Your task to perform on an android device: Open Maps and search for coffee Image 0: 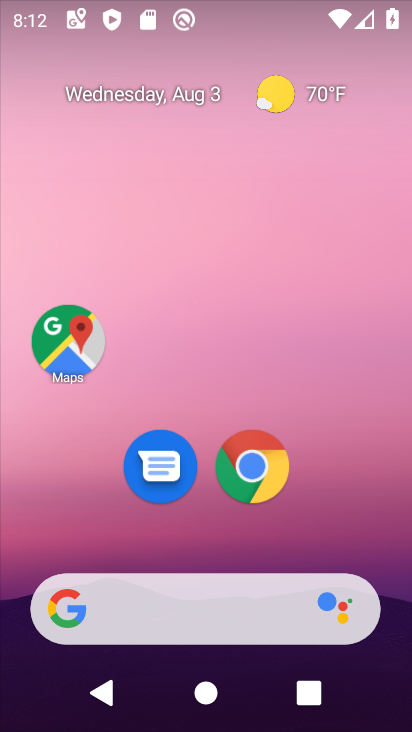
Step 0: drag from (347, 434) to (360, 63)
Your task to perform on an android device: Open Maps and search for coffee Image 1: 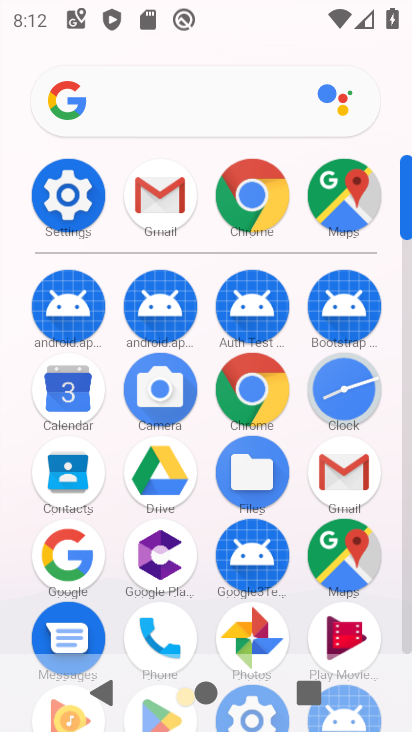
Step 1: click (346, 574)
Your task to perform on an android device: Open Maps and search for coffee Image 2: 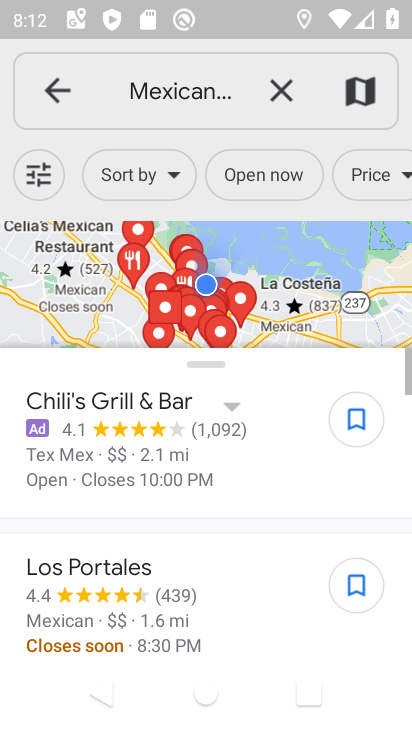
Step 2: click (208, 86)
Your task to perform on an android device: Open Maps and search for coffee Image 3: 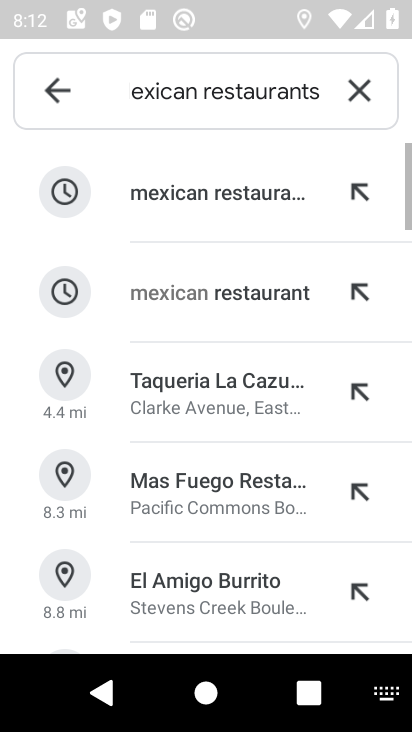
Step 3: click (365, 93)
Your task to perform on an android device: Open Maps and search for coffee Image 4: 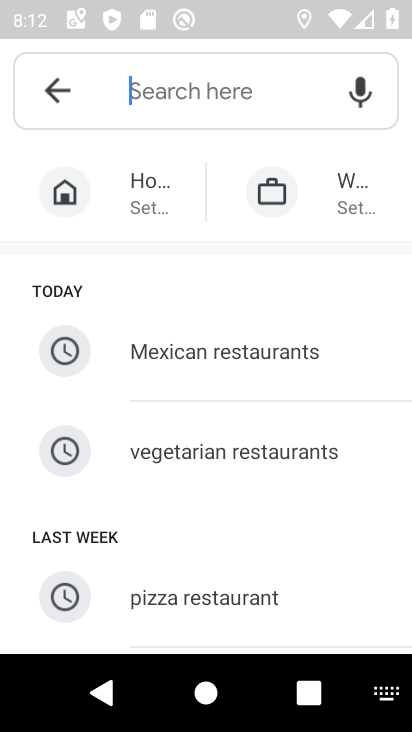
Step 4: type "coffee"
Your task to perform on an android device: Open Maps and search for coffee Image 5: 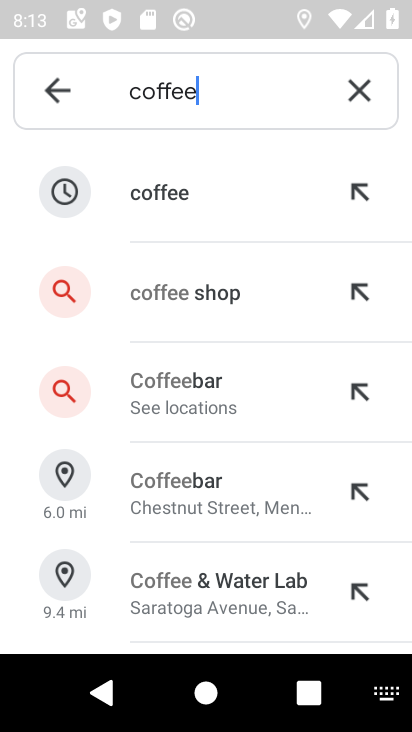
Step 5: click (161, 206)
Your task to perform on an android device: Open Maps and search for coffee Image 6: 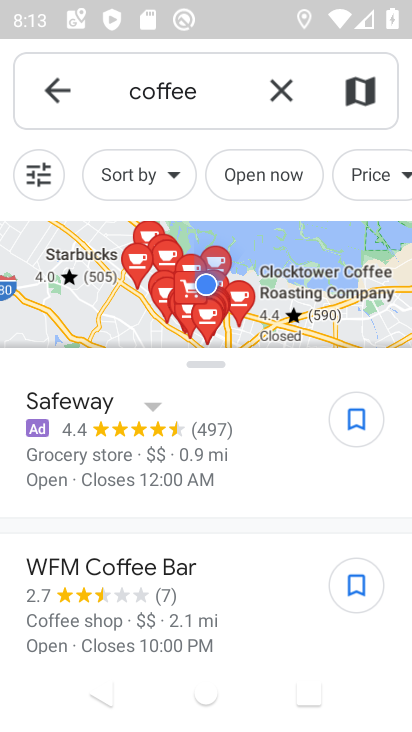
Step 6: task complete